Your task to perform on an android device: Search for seafood restaurants on Google Maps Image 0: 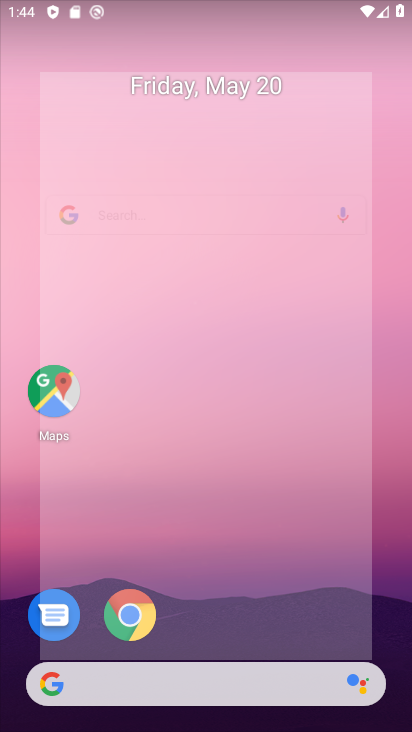
Step 0: drag from (206, 593) to (228, 299)
Your task to perform on an android device: Search for seafood restaurants on Google Maps Image 1: 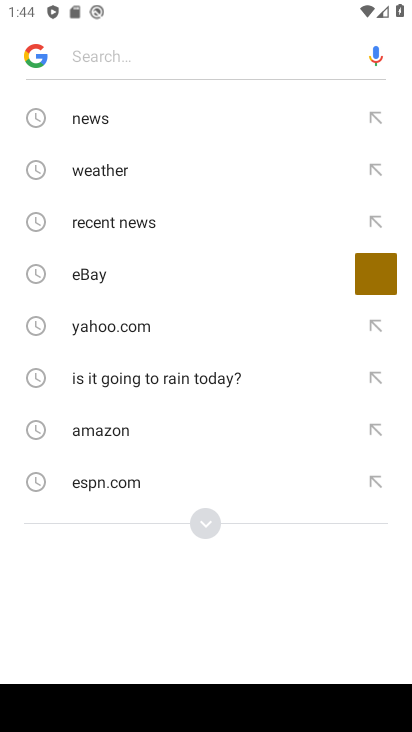
Step 1: press home button
Your task to perform on an android device: Search for seafood restaurants on Google Maps Image 2: 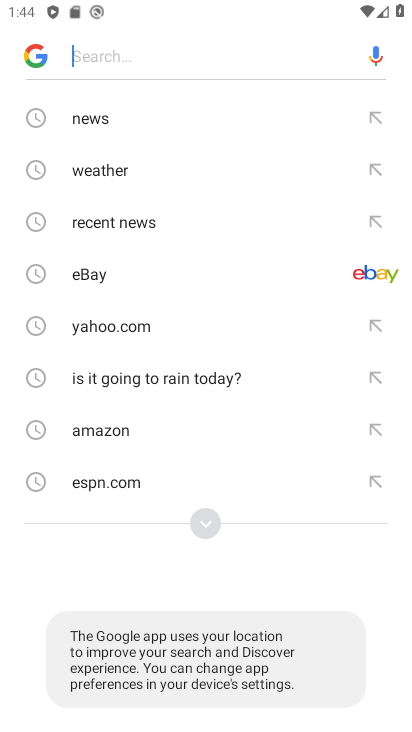
Step 2: press home button
Your task to perform on an android device: Search for seafood restaurants on Google Maps Image 3: 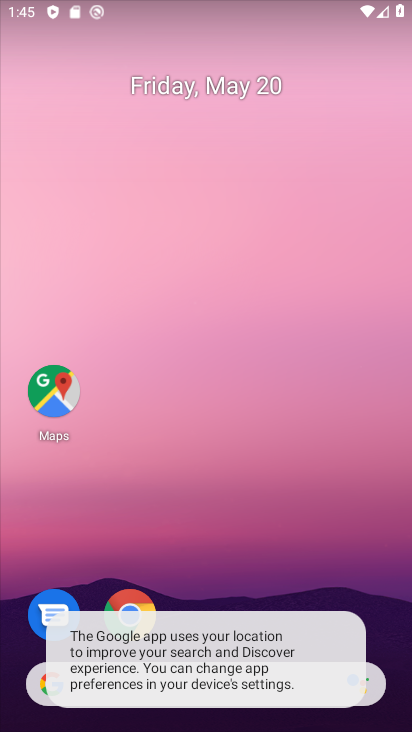
Step 3: click (52, 378)
Your task to perform on an android device: Search for seafood restaurants on Google Maps Image 4: 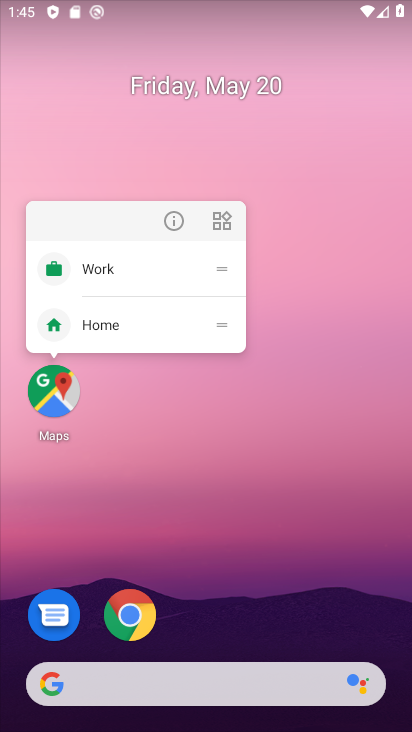
Step 4: click (52, 378)
Your task to perform on an android device: Search for seafood restaurants on Google Maps Image 5: 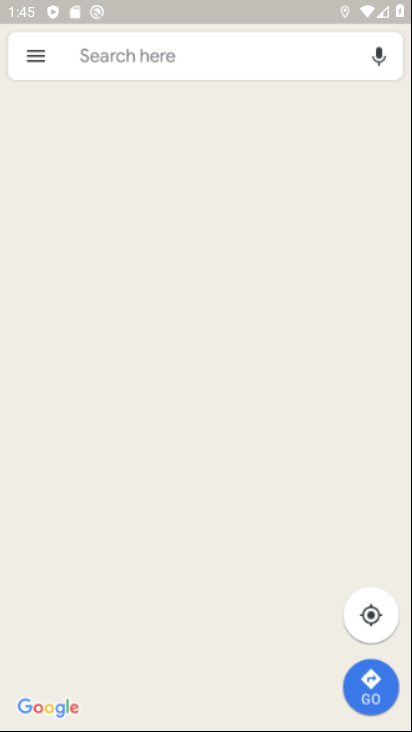
Step 5: click (44, 392)
Your task to perform on an android device: Search for seafood restaurants on Google Maps Image 6: 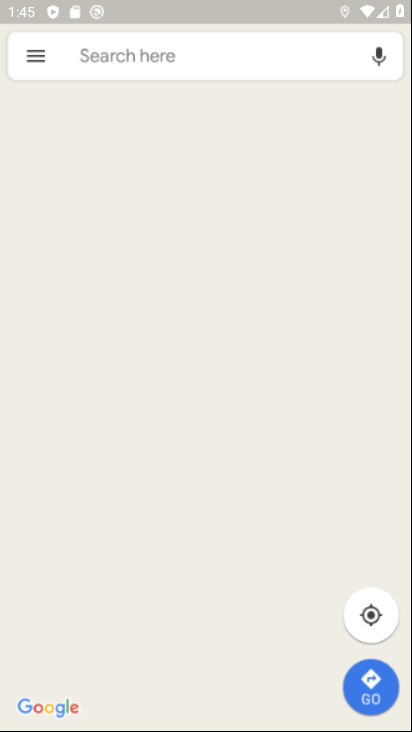
Step 6: click (187, 55)
Your task to perform on an android device: Search for seafood restaurants on Google Maps Image 7: 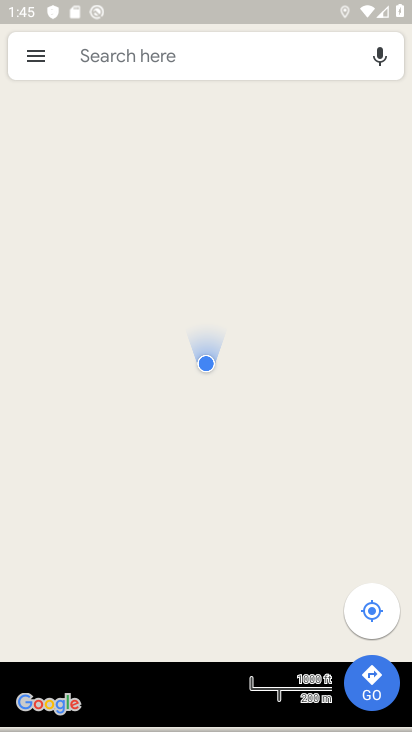
Step 7: click (145, 53)
Your task to perform on an android device: Search for seafood restaurants on Google Maps Image 8: 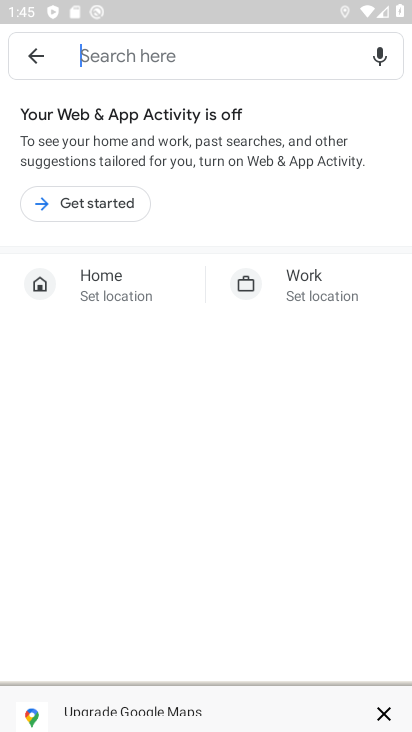
Step 8: click (388, 694)
Your task to perform on an android device: Search for seafood restaurants on Google Maps Image 9: 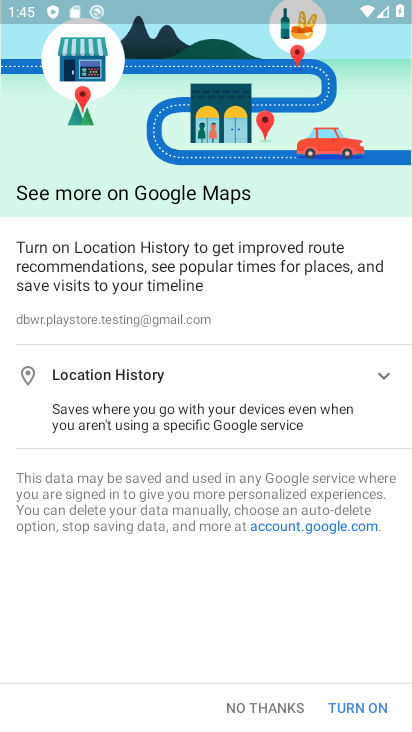
Step 9: click (362, 713)
Your task to perform on an android device: Search for seafood restaurants on Google Maps Image 10: 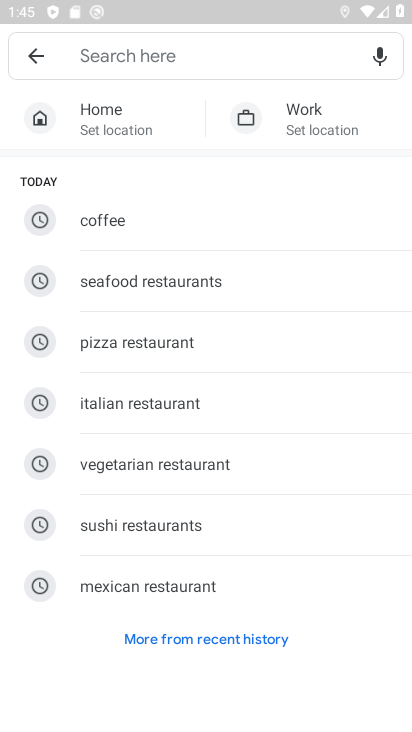
Step 10: click (196, 288)
Your task to perform on an android device: Search for seafood restaurants on Google Maps Image 11: 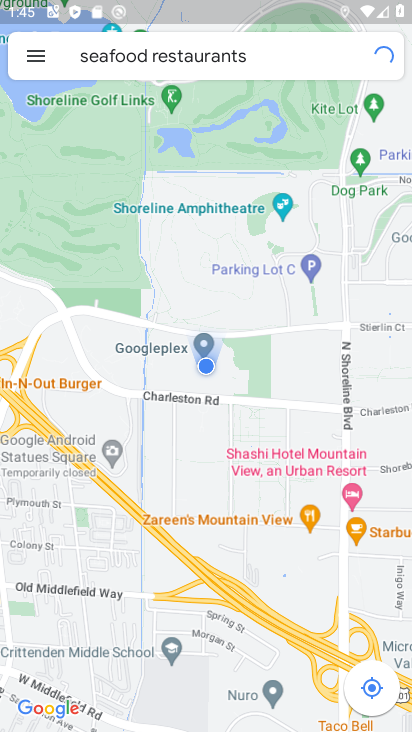
Step 11: task complete